Your task to perform on an android device: Go to CNN.com Image 0: 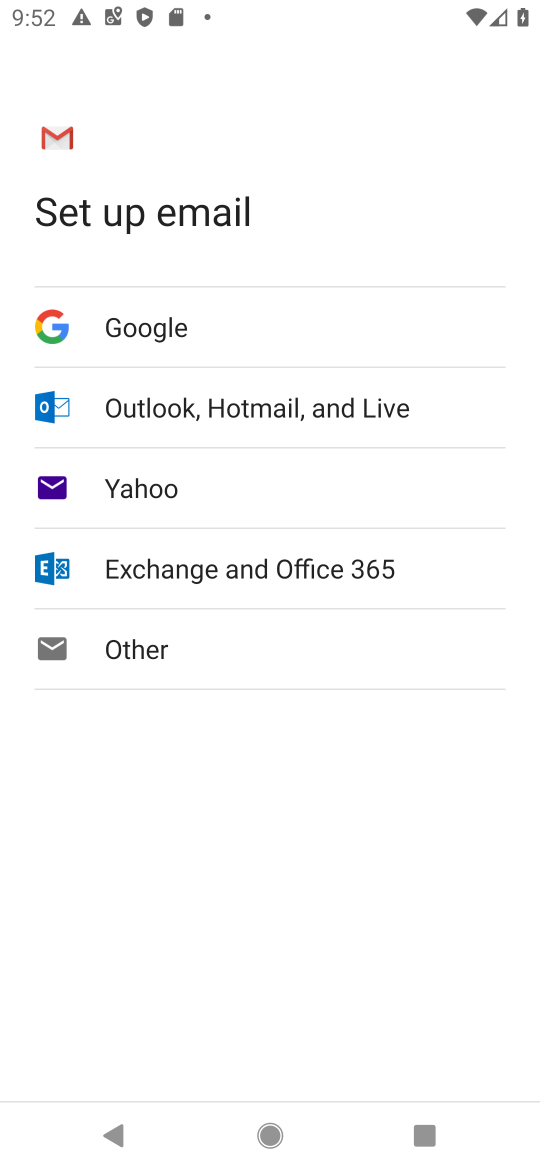
Step 0: press home button
Your task to perform on an android device: Go to CNN.com Image 1: 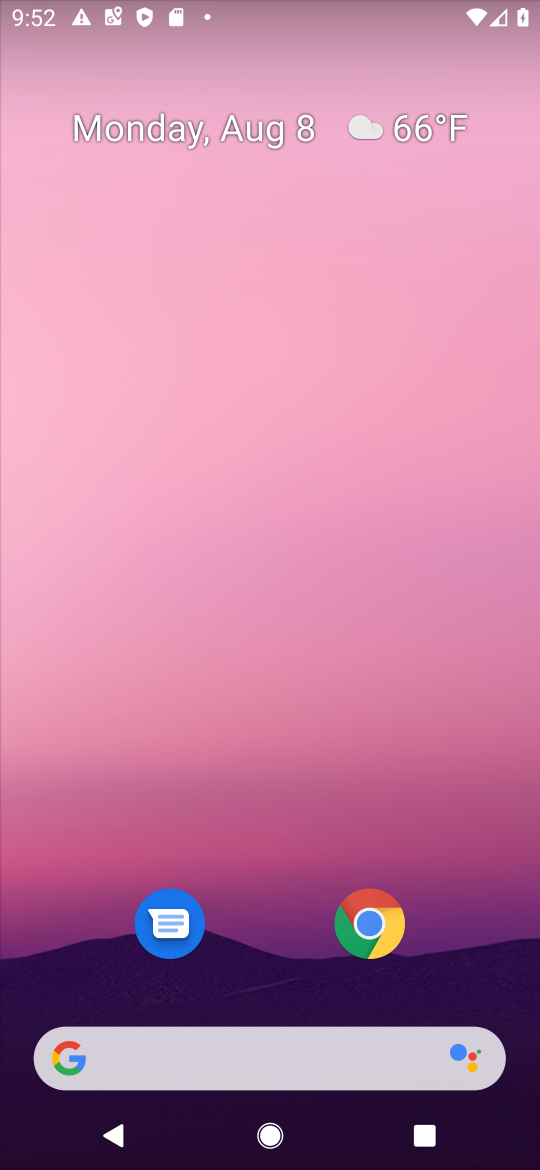
Step 1: click (180, 1049)
Your task to perform on an android device: Go to CNN.com Image 2: 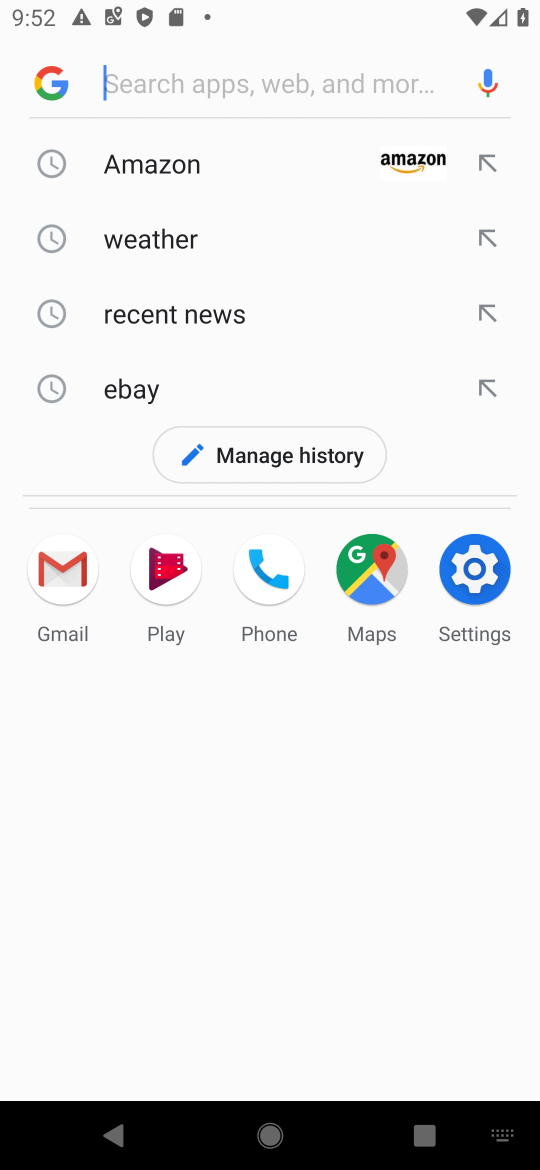
Step 2: type "CNN.com"
Your task to perform on an android device: Go to CNN.com Image 3: 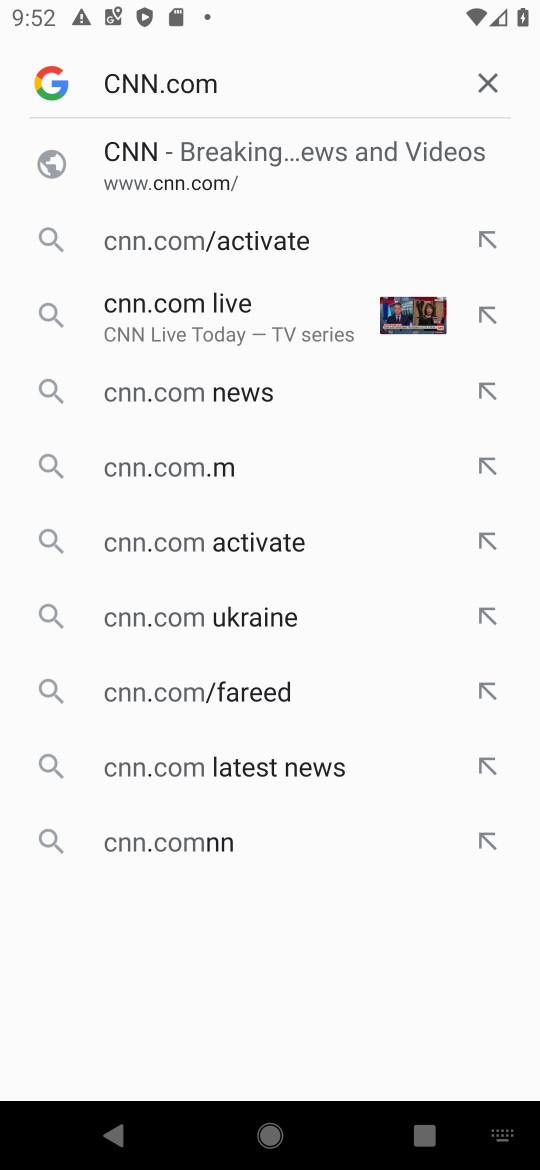
Step 3: click (138, 158)
Your task to perform on an android device: Go to CNN.com Image 4: 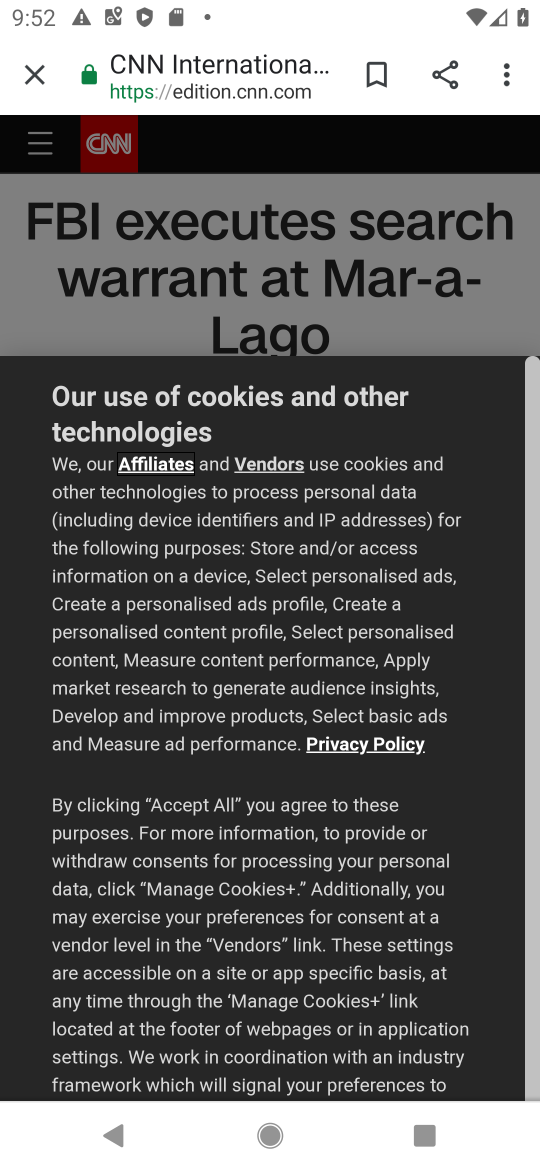
Step 4: task complete